Your task to perform on an android device: turn off translation in the chrome app Image 0: 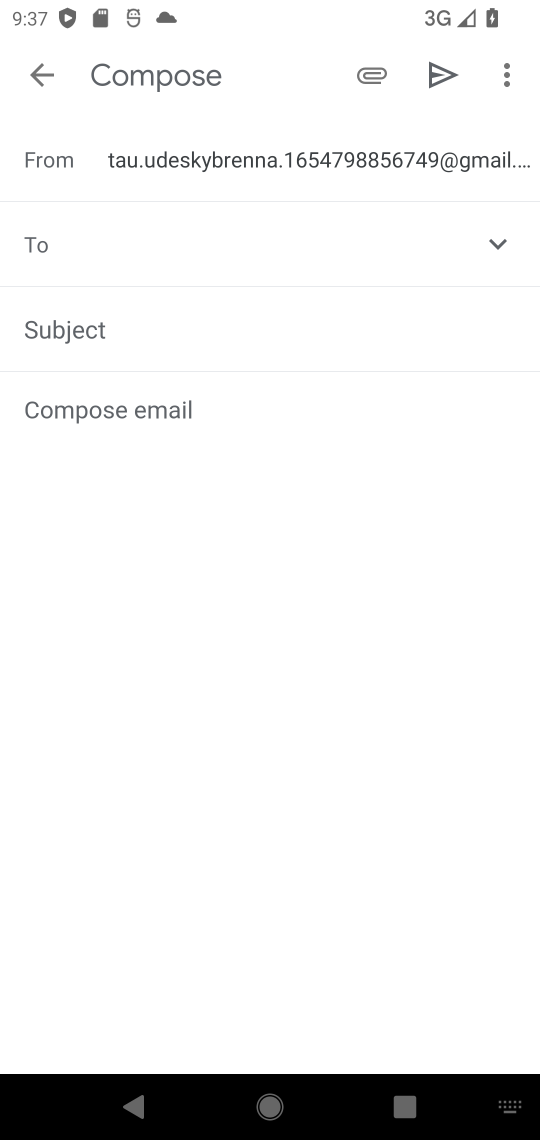
Step 0: press home button
Your task to perform on an android device: turn off translation in the chrome app Image 1: 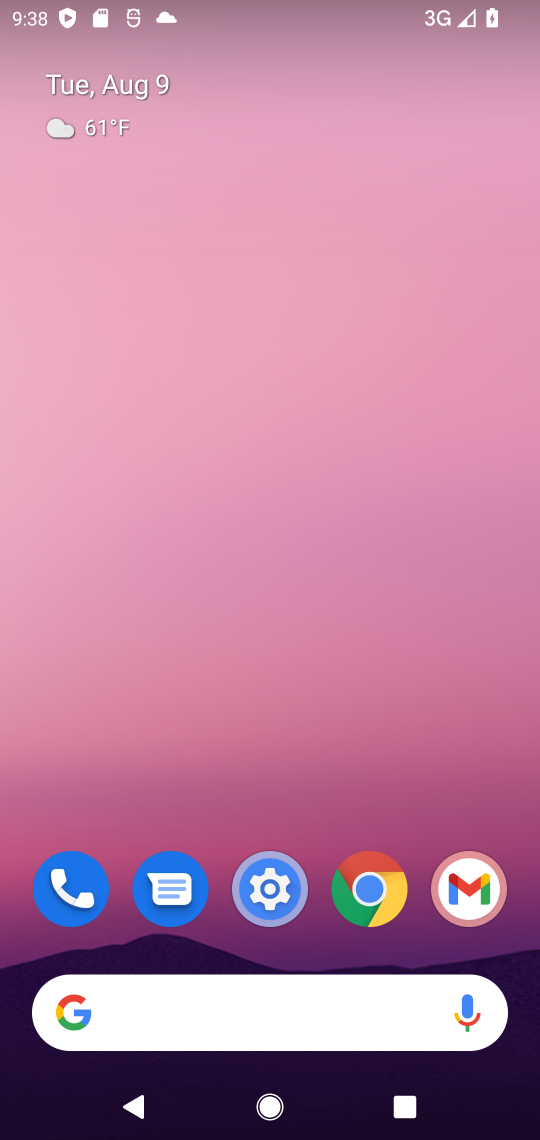
Step 1: drag from (279, 930) to (382, 173)
Your task to perform on an android device: turn off translation in the chrome app Image 2: 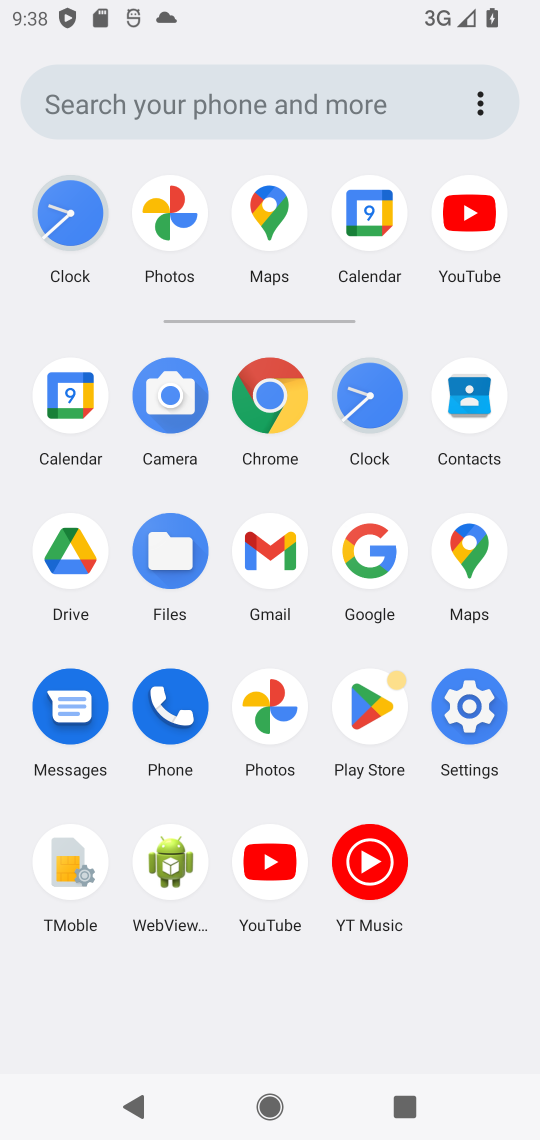
Step 2: click (268, 386)
Your task to perform on an android device: turn off translation in the chrome app Image 3: 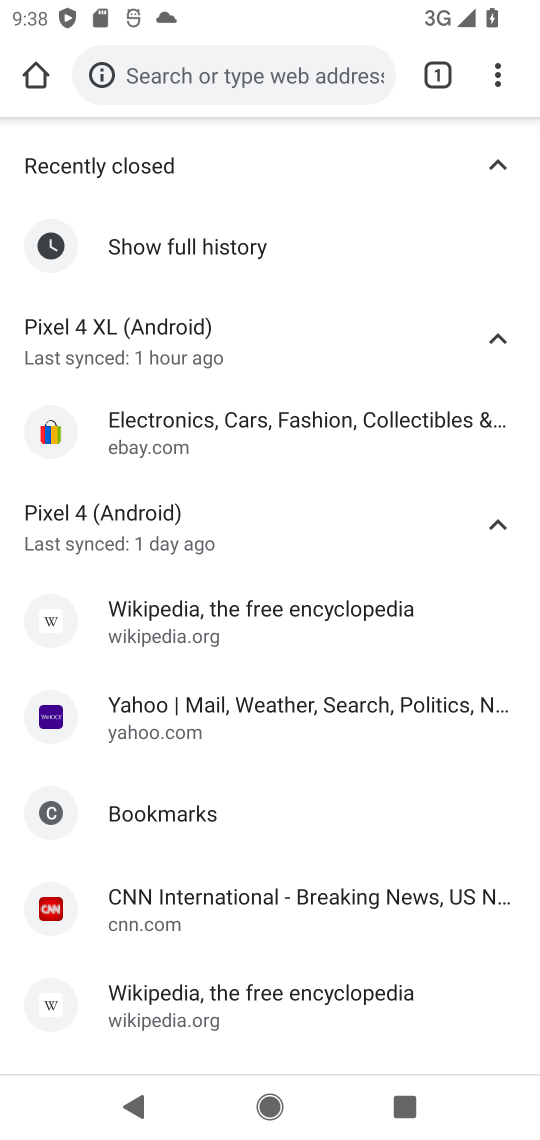
Step 3: drag from (490, 68) to (276, 803)
Your task to perform on an android device: turn off translation in the chrome app Image 4: 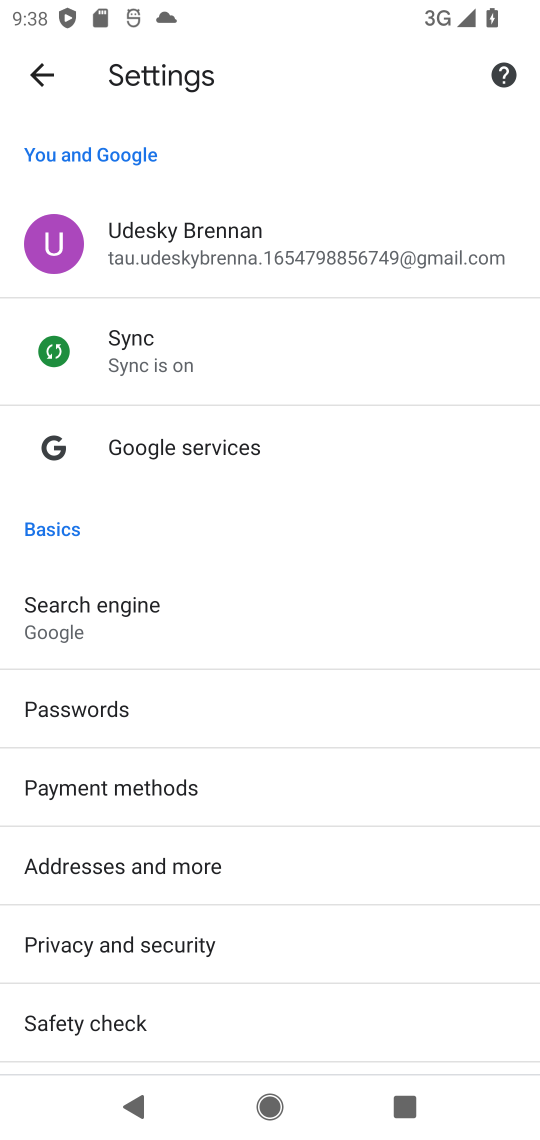
Step 4: drag from (282, 924) to (413, 112)
Your task to perform on an android device: turn off translation in the chrome app Image 5: 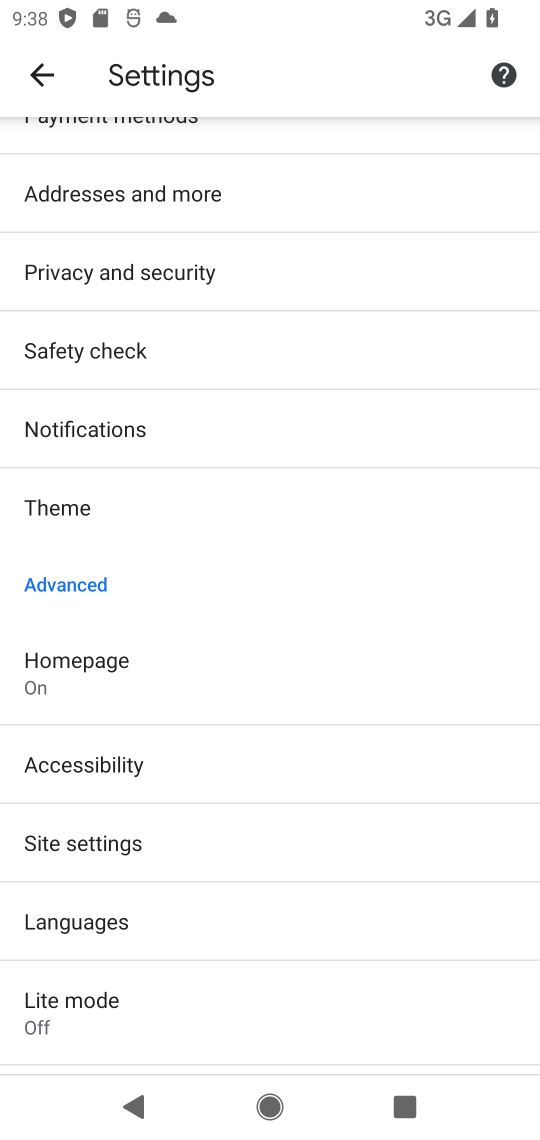
Step 5: drag from (175, 1051) to (269, 454)
Your task to perform on an android device: turn off translation in the chrome app Image 6: 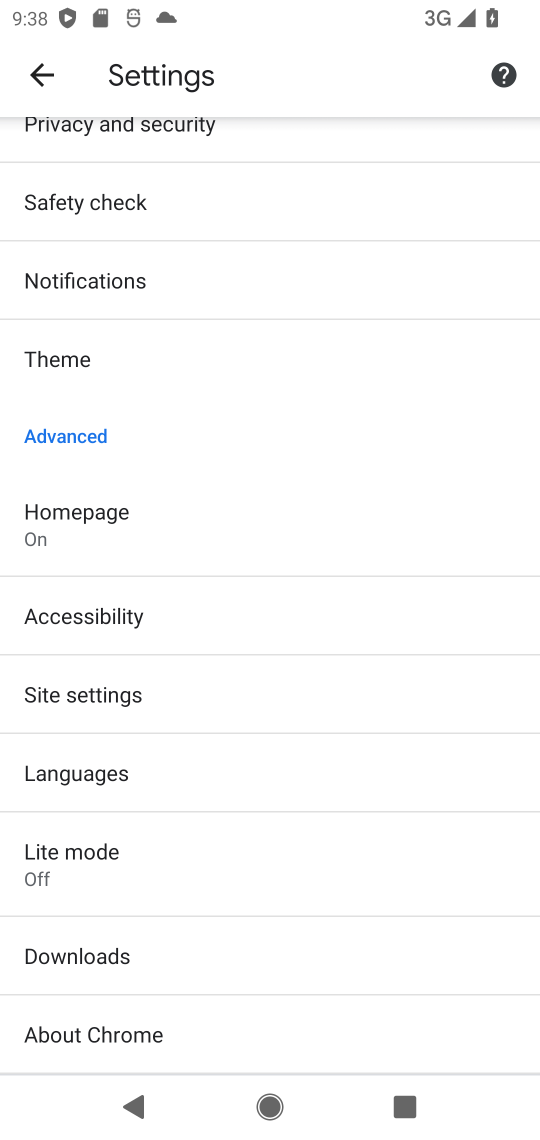
Step 6: click (87, 779)
Your task to perform on an android device: turn off translation in the chrome app Image 7: 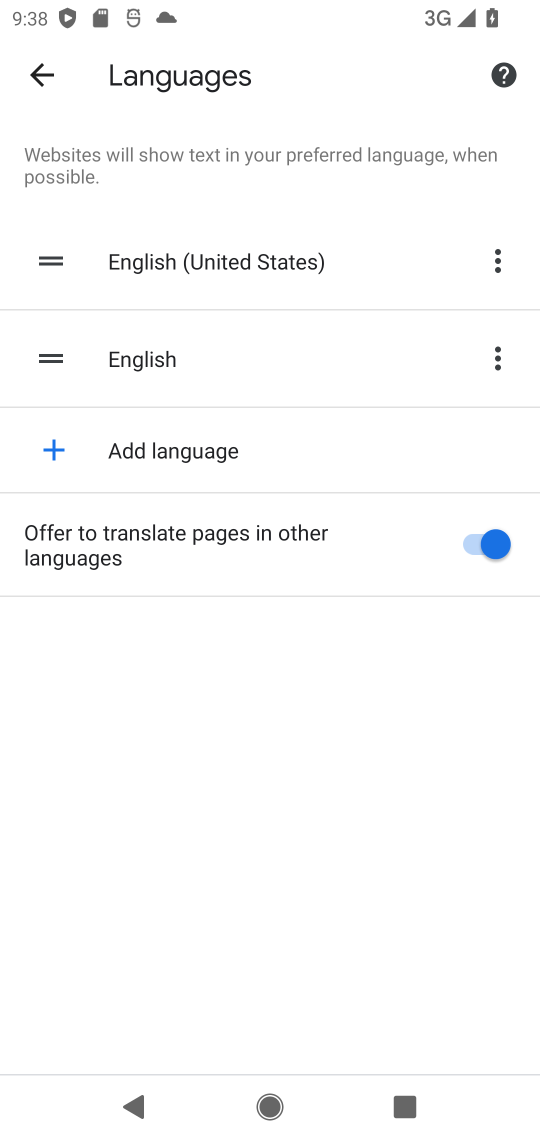
Step 7: click (489, 547)
Your task to perform on an android device: turn off translation in the chrome app Image 8: 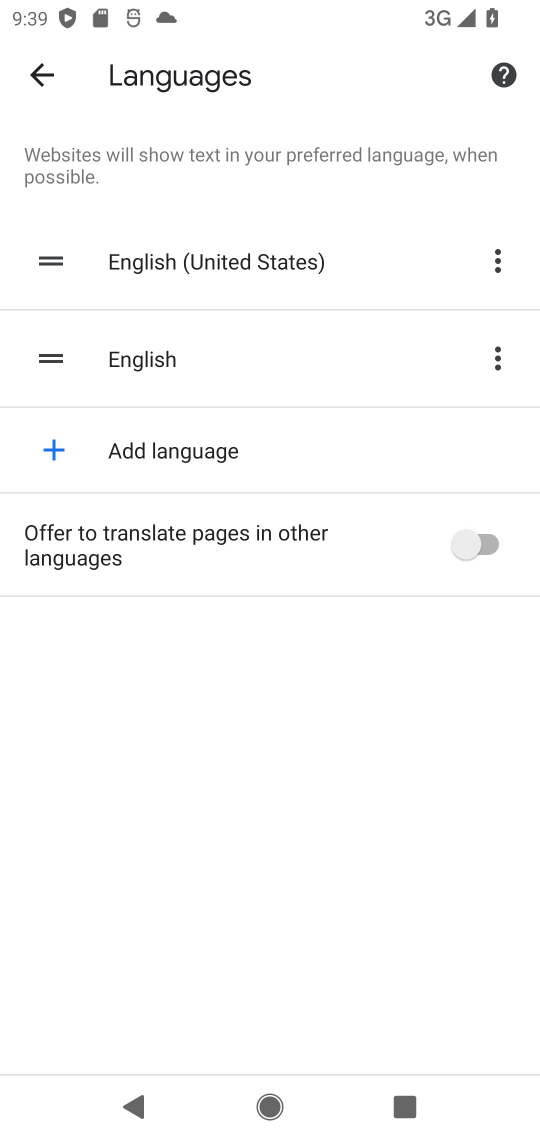
Step 8: task complete